Your task to perform on an android device: open app "TextNow: Call + Text Unlimited" (install if not already installed) Image 0: 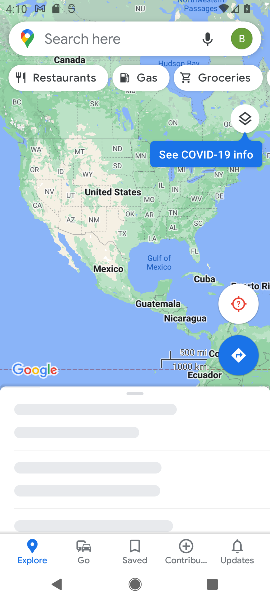
Step 0: press home button
Your task to perform on an android device: open app "TextNow: Call + Text Unlimited" (install if not already installed) Image 1: 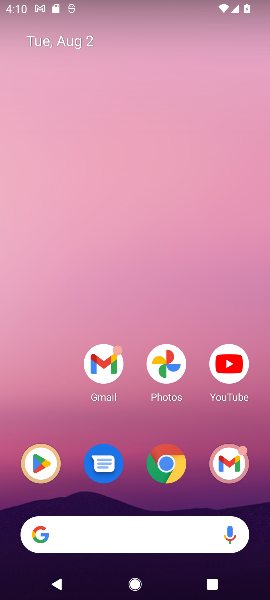
Step 1: click (33, 467)
Your task to perform on an android device: open app "TextNow: Call + Text Unlimited" (install if not already installed) Image 2: 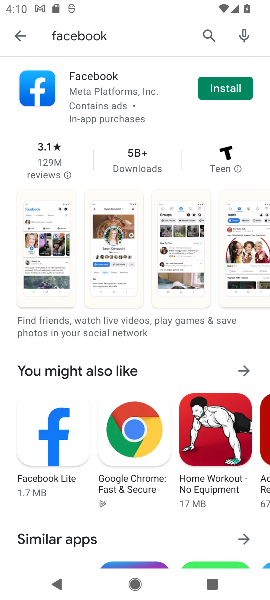
Step 2: click (207, 37)
Your task to perform on an android device: open app "TextNow: Call + Text Unlimited" (install if not already installed) Image 3: 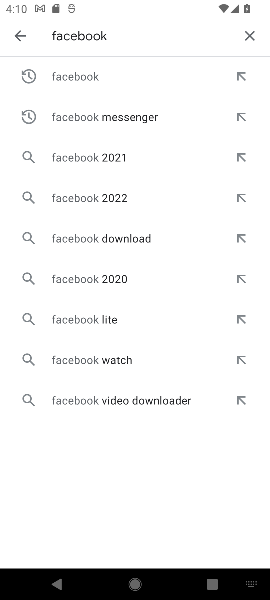
Step 3: click (250, 34)
Your task to perform on an android device: open app "TextNow: Call + Text Unlimited" (install if not already installed) Image 4: 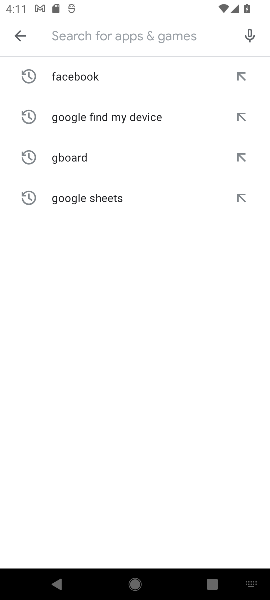
Step 4: type "TextNow: Call + Text Unlimited"
Your task to perform on an android device: open app "TextNow: Call + Text Unlimited" (install if not already installed) Image 5: 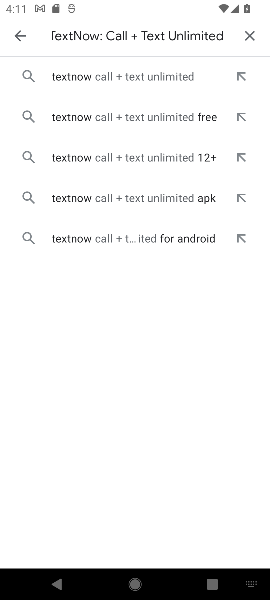
Step 5: click (107, 75)
Your task to perform on an android device: open app "TextNow: Call + Text Unlimited" (install if not already installed) Image 6: 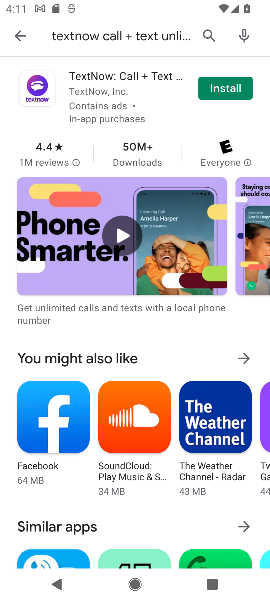
Step 6: click (220, 85)
Your task to perform on an android device: open app "TextNow: Call + Text Unlimited" (install if not already installed) Image 7: 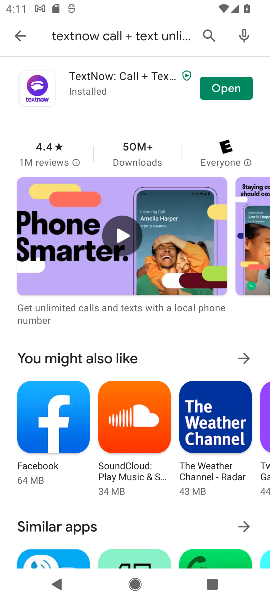
Step 7: click (235, 89)
Your task to perform on an android device: open app "TextNow: Call + Text Unlimited" (install if not already installed) Image 8: 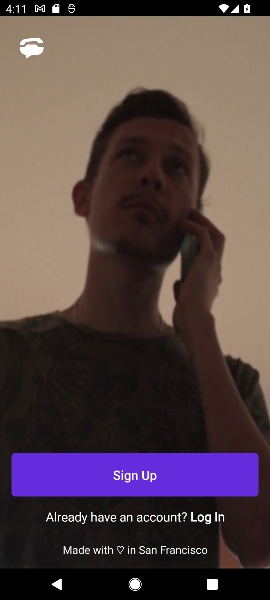
Step 8: task complete